Your task to perform on an android device: turn vacation reply on in the gmail app Image 0: 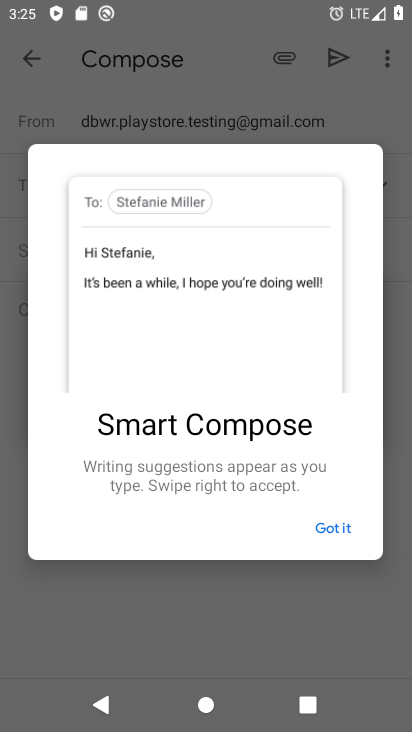
Step 0: press home button
Your task to perform on an android device: turn vacation reply on in the gmail app Image 1: 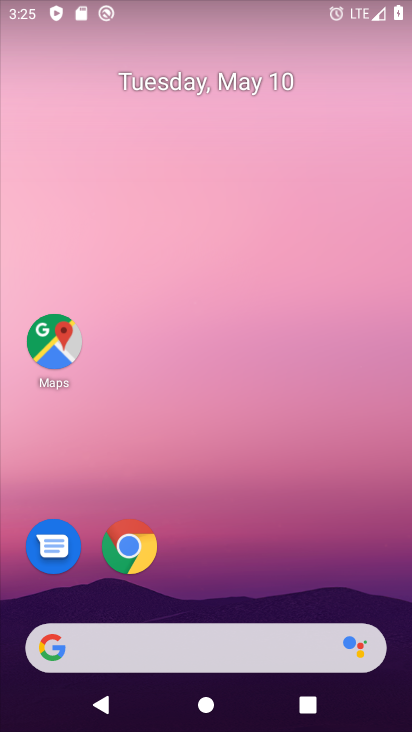
Step 1: drag from (222, 607) to (277, 44)
Your task to perform on an android device: turn vacation reply on in the gmail app Image 2: 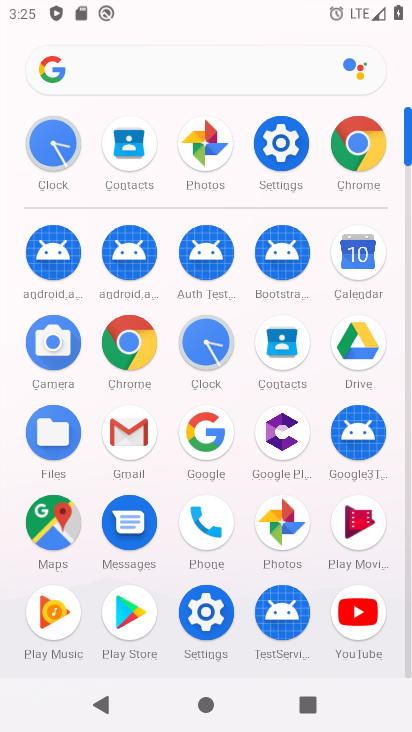
Step 2: click (143, 439)
Your task to perform on an android device: turn vacation reply on in the gmail app Image 3: 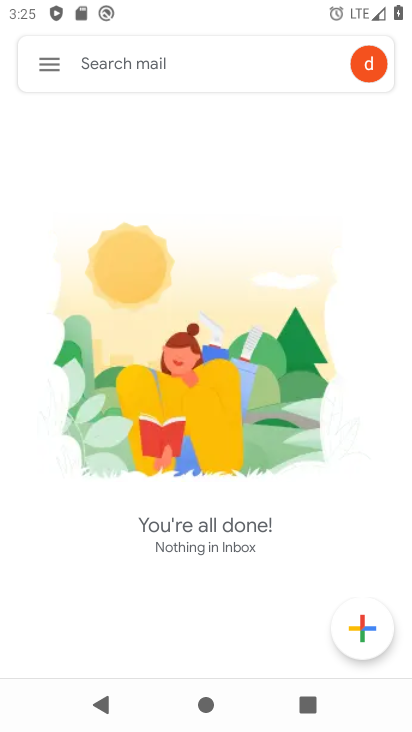
Step 3: click (55, 55)
Your task to perform on an android device: turn vacation reply on in the gmail app Image 4: 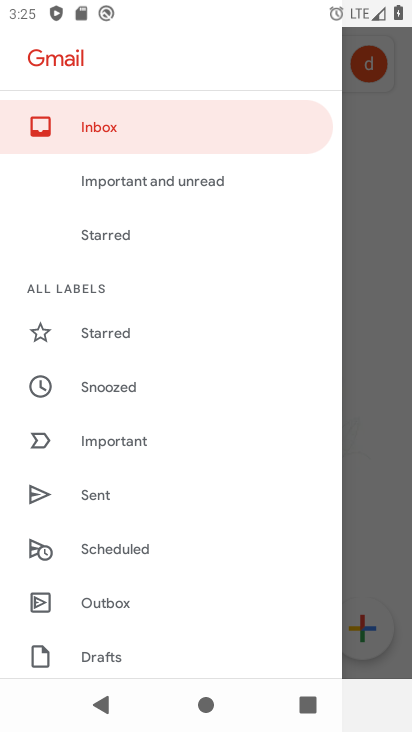
Step 4: drag from (120, 609) to (192, 340)
Your task to perform on an android device: turn vacation reply on in the gmail app Image 5: 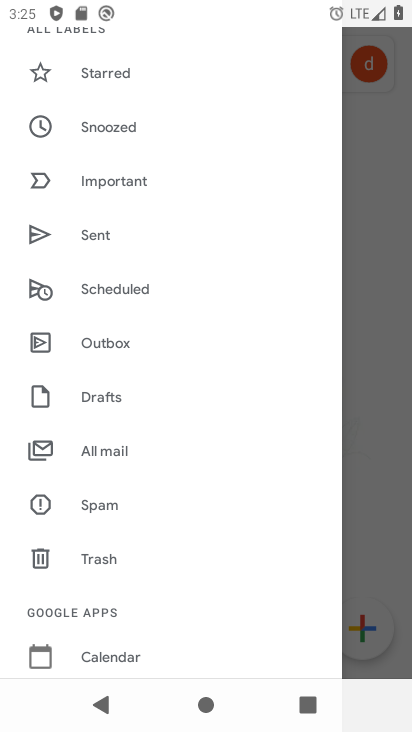
Step 5: drag from (132, 571) to (173, 201)
Your task to perform on an android device: turn vacation reply on in the gmail app Image 6: 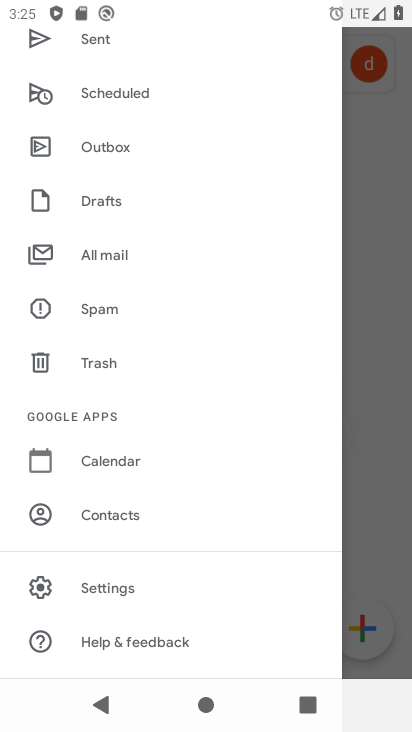
Step 6: click (91, 597)
Your task to perform on an android device: turn vacation reply on in the gmail app Image 7: 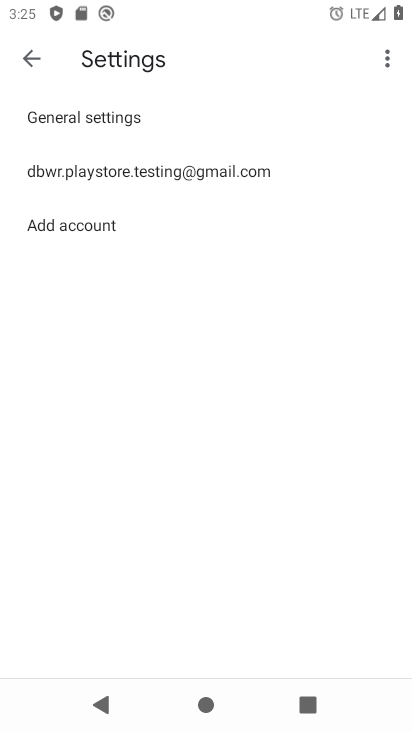
Step 7: click (119, 175)
Your task to perform on an android device: turn vacation reply on in the gmail app Image 8: 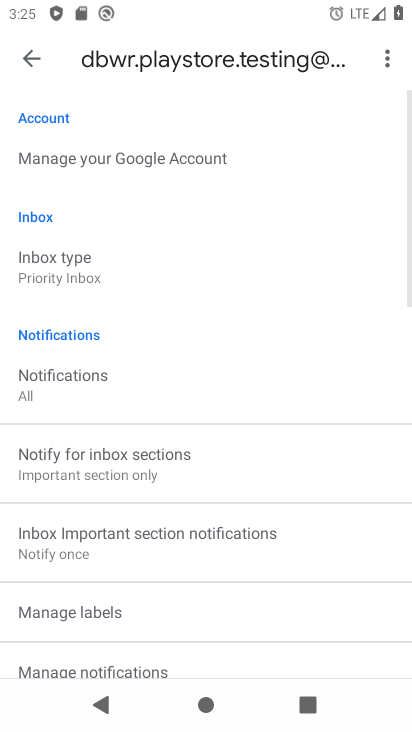
Step 8: drag from (155, 604) to (264, 141)
Your task to perform on an android device: turn vacation reply on in the gmail app Image 9: 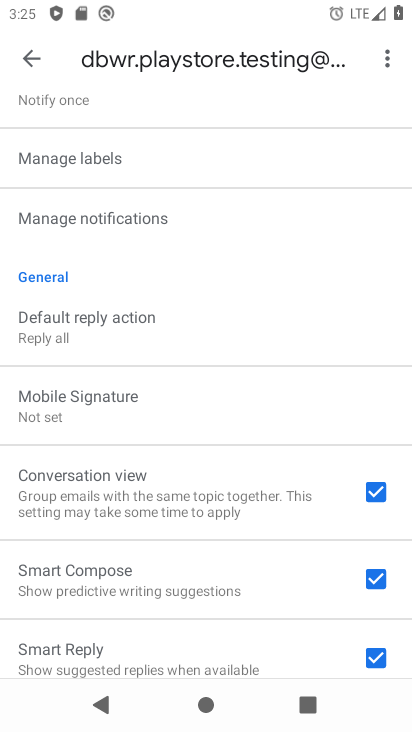
Step 9: drag from (234, 561) to (285, 176)
Your task to perform on an android device: turn vacation reply on in the gmail app Image 10: 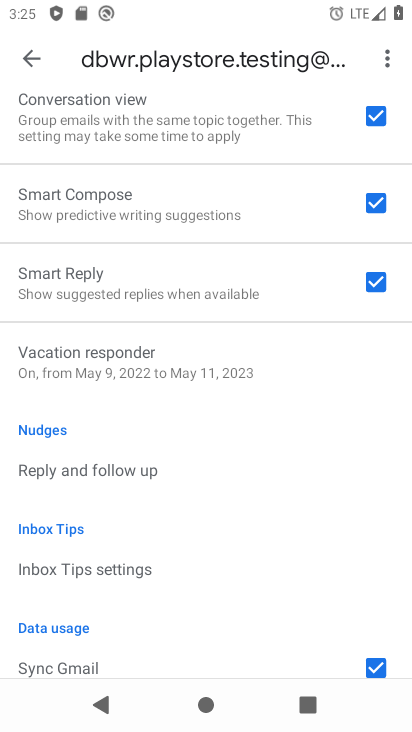
Step 10: click (205, 373)
Your task to perform on an android device: turn vacation reply on in the gmail app Image 11: 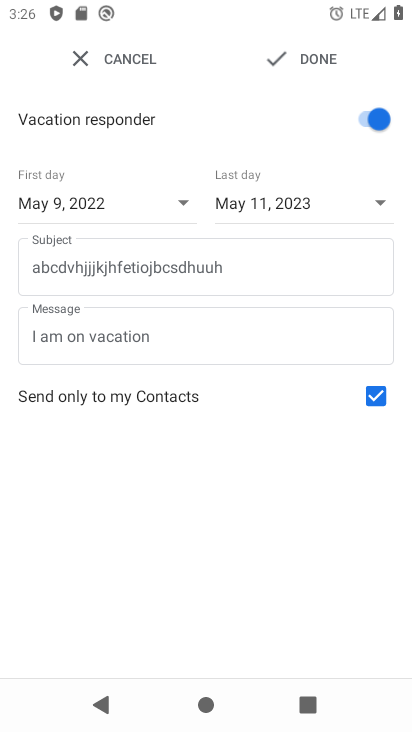
Step 11: task complete